Your task to perform on an android device: turn on sleep mode Image 0: 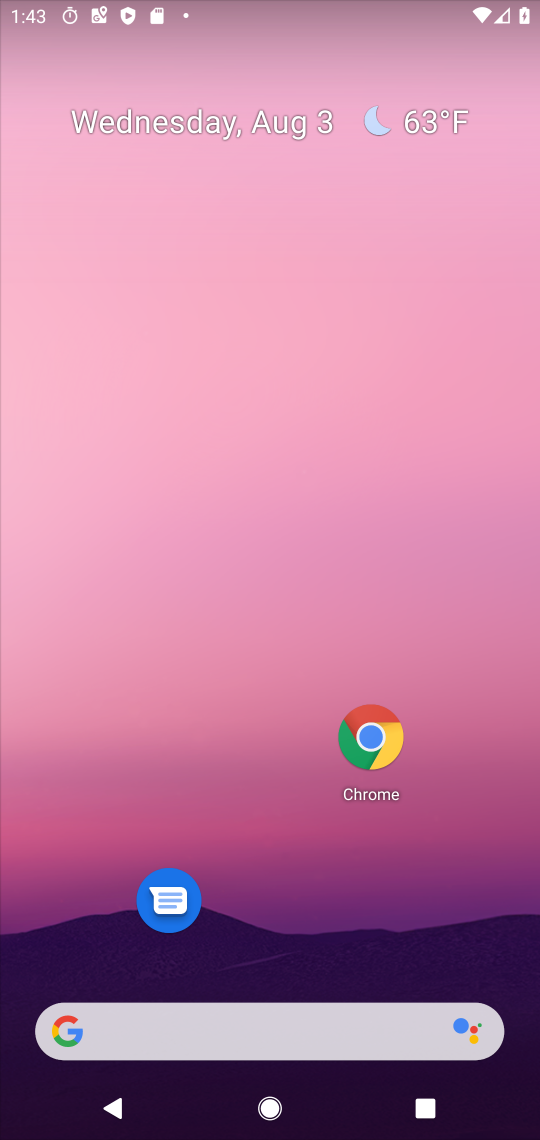
Step 0: drag from (255, 928) to (274, 139)
Your task to perform on an android device: turn on sleep mode Image 1: 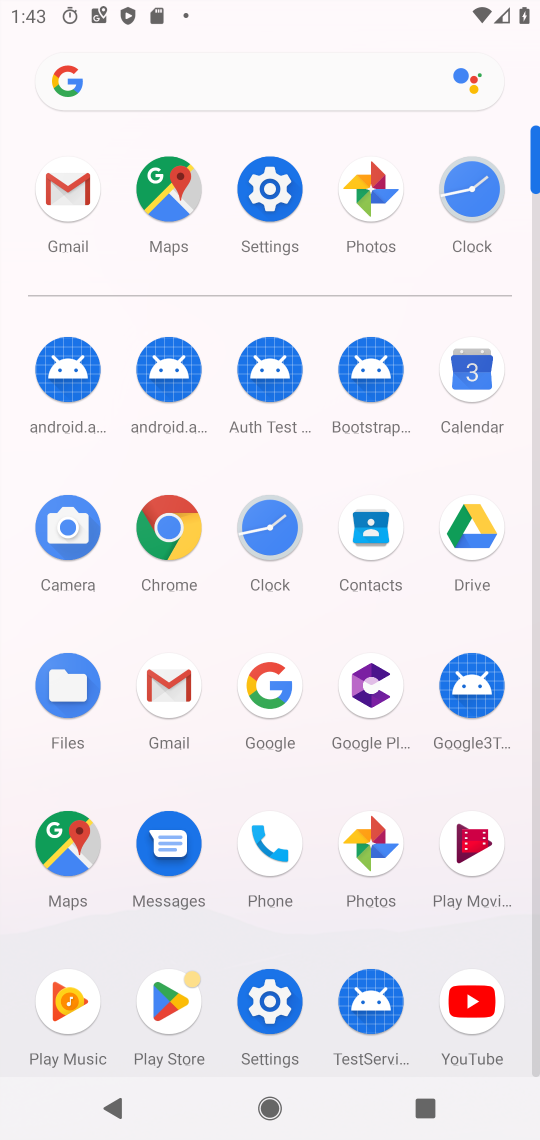
Step 1: click (272, 194)
Your task to perform on an android device: turn on sleep mode Image 2: 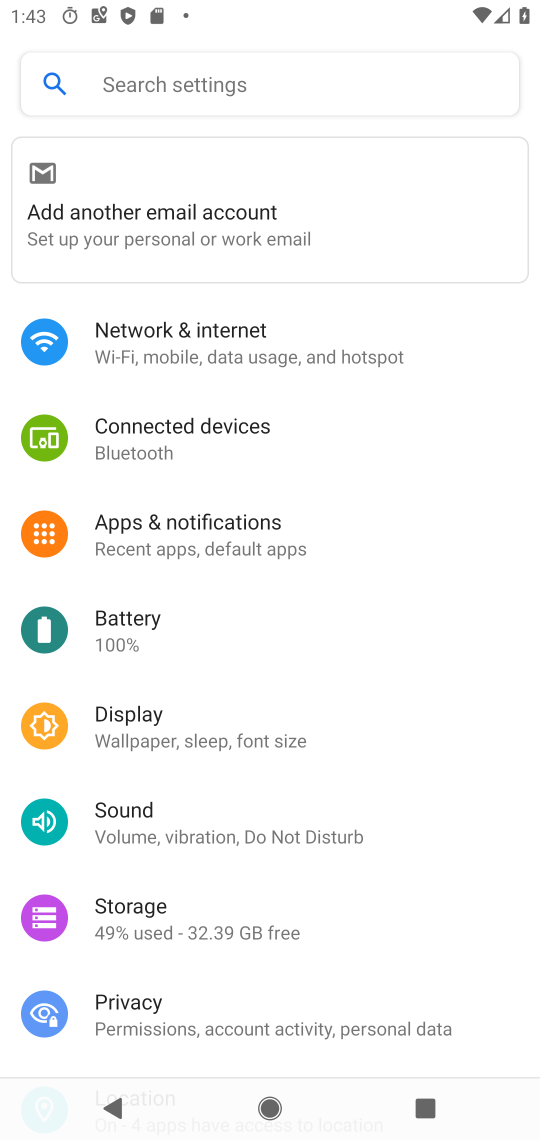
Step 2: click (173, 715)
Your task to perform on an android device: turn on sleep mode Image 3: 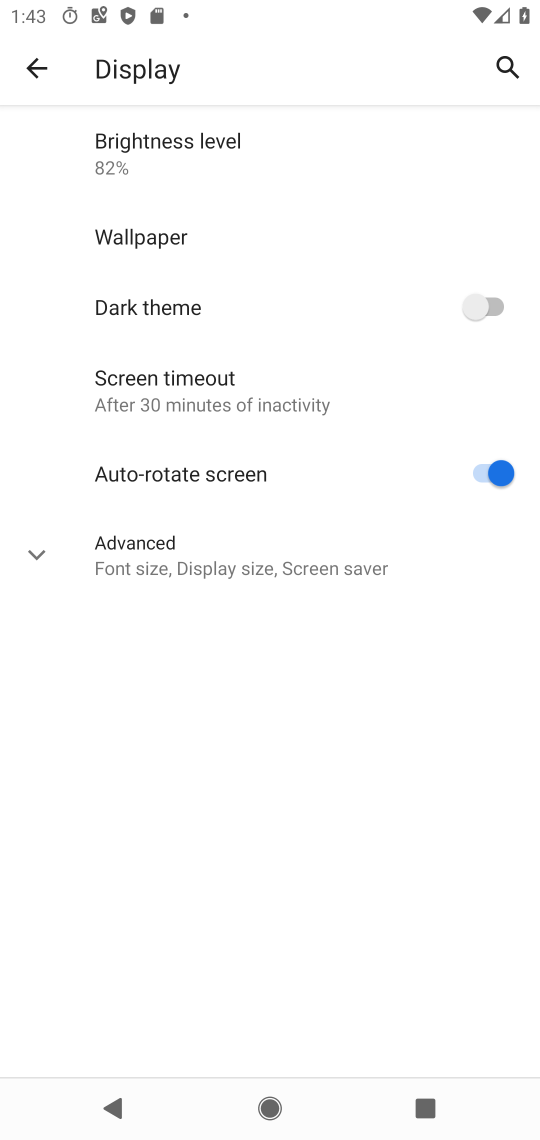
Step 3: click (222, 388)
Your task to perform on an android device: turn on sleep mode Image 4: 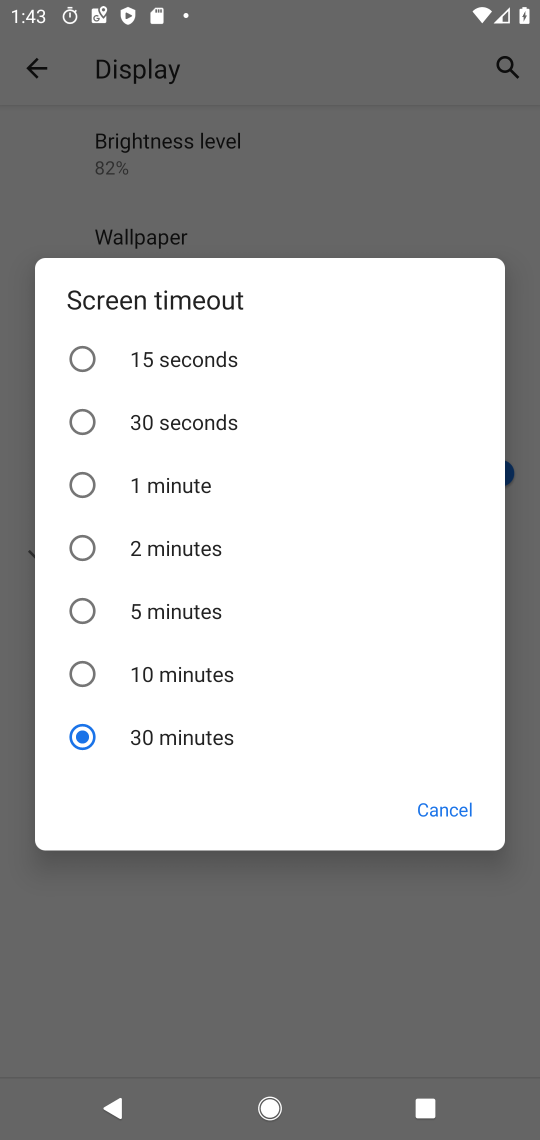
Step 4: task complete